Your task to perform on an android device: Go to Android settings Image 0: 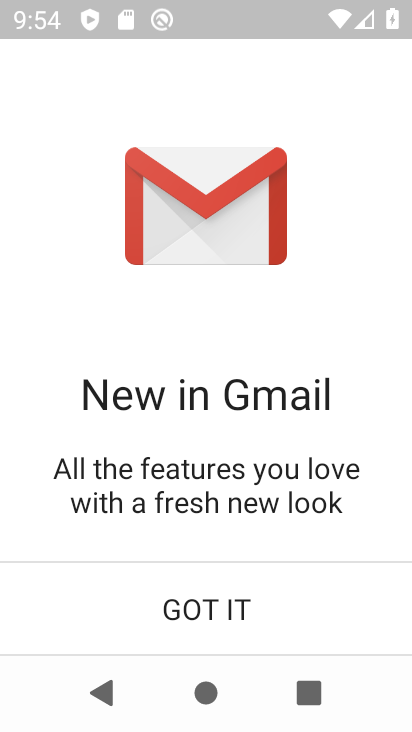
Step 0: click (208, 616)
Your task to perform on an android device: Go to Android settings Image 1: 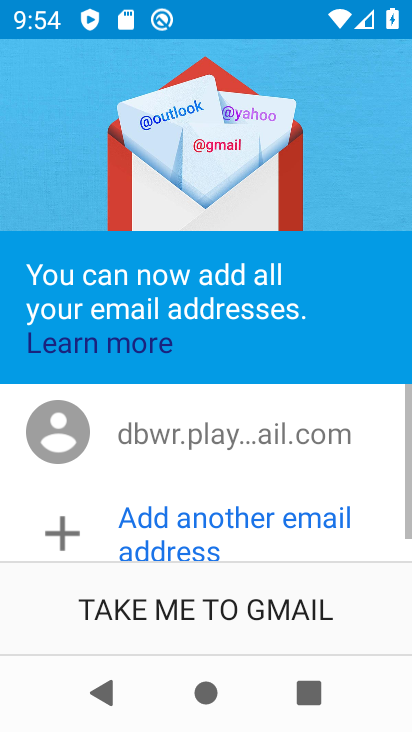
Step 1: click (209, 617)
Your task to perform on an android device: Go to Android settings Image 2: 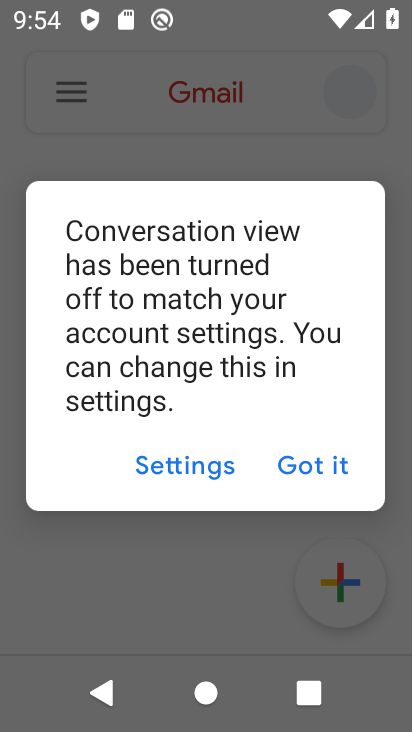
Step 2: click (319, 466)
Your task to perform on an android device: Go to Android settings Image 3: 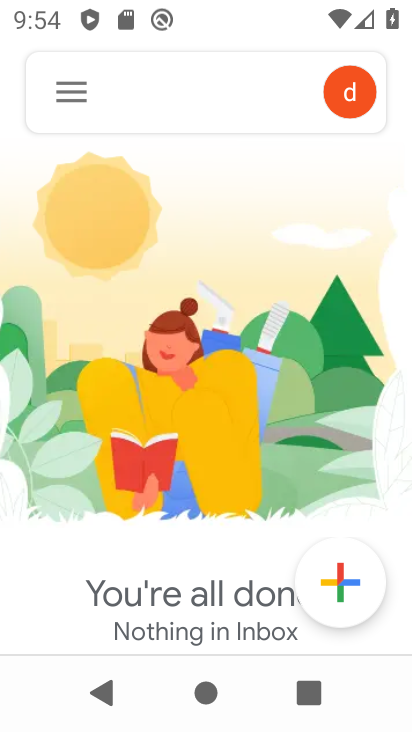
Step 3: press home button
Your task to perform on an android device: Go to Android settings Image 4: 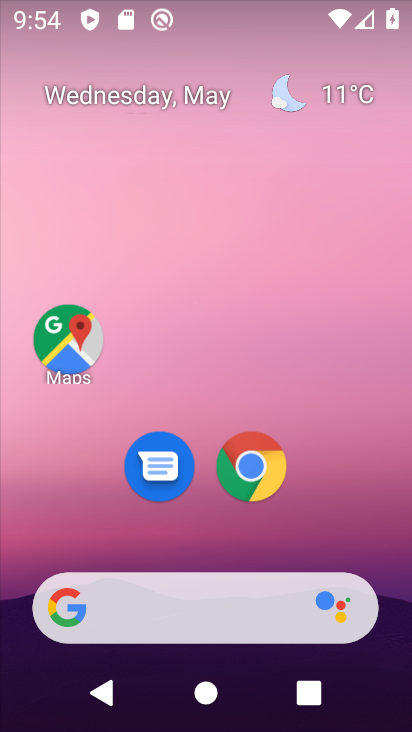
Step 4: drag from (262, 546) to (309, 116)
Your task to perform on an android device: Go to Android settings Image 5: 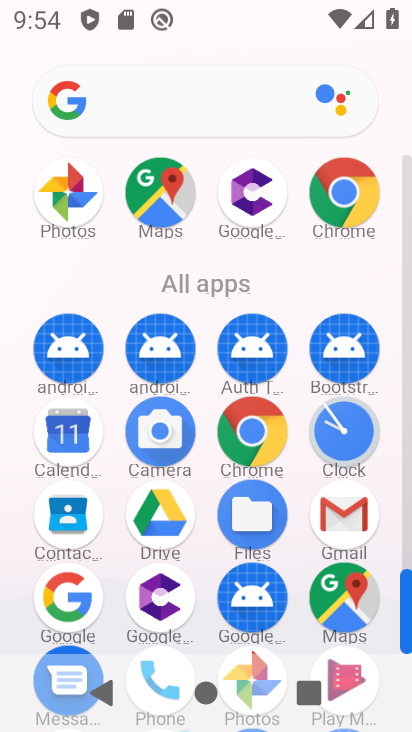
Step 5: drag from (286, 591) to (332, 235)
Your task to perform on an android device: Go to Android settings Image 6: 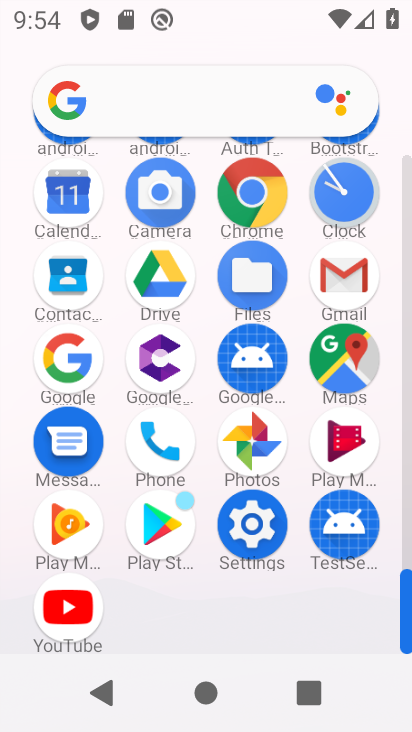
Step 6: click (243, 540)
Your task to perform on an android device: Go to Android settings Image 7: 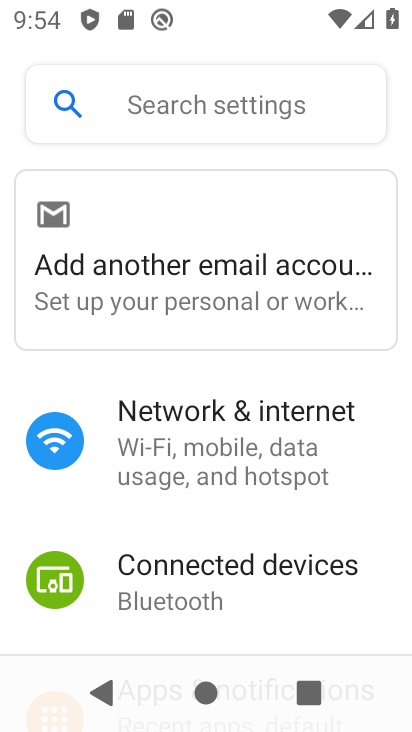
Step 7: drag from (232, 608) to (279, 171)
Your task to perform on an android device: Go to Android settings Image 8: 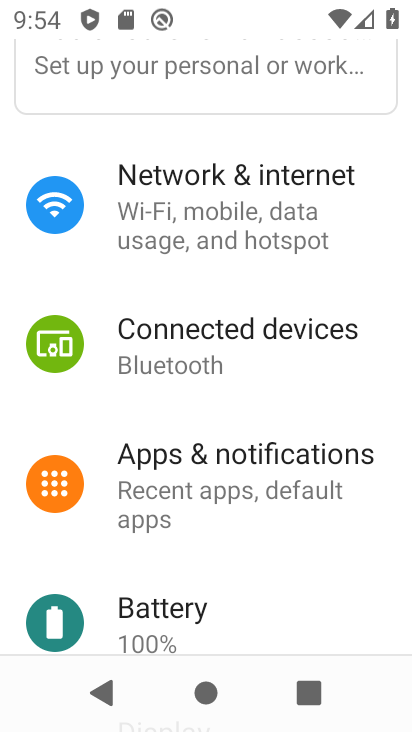
Step 8: drag from (268, 564) to (250, 207)
Your task to perform on an android device: Go to Android settings Image 9: 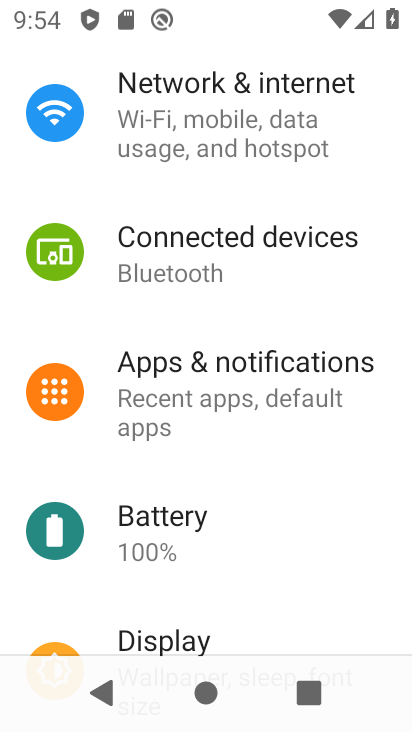
Step 9: drag from (235, 407) to (242, 268)
Your task to perform on an android device: Go to Android settings Image 10: 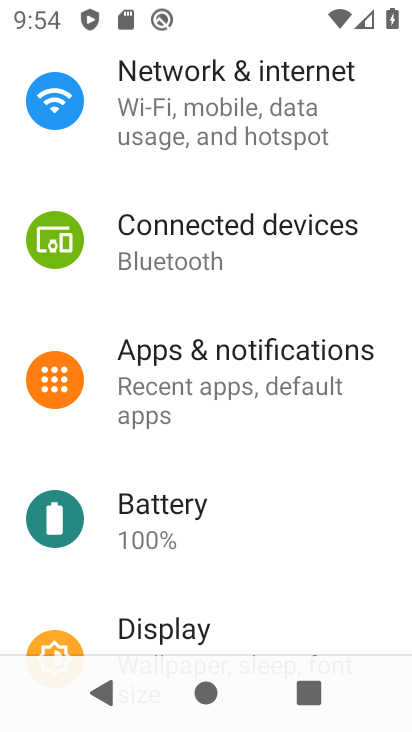
Step 10: drag from (252, 600) to (232, 142)
Your task to perform on an android device: Go to Android settings Image 11: 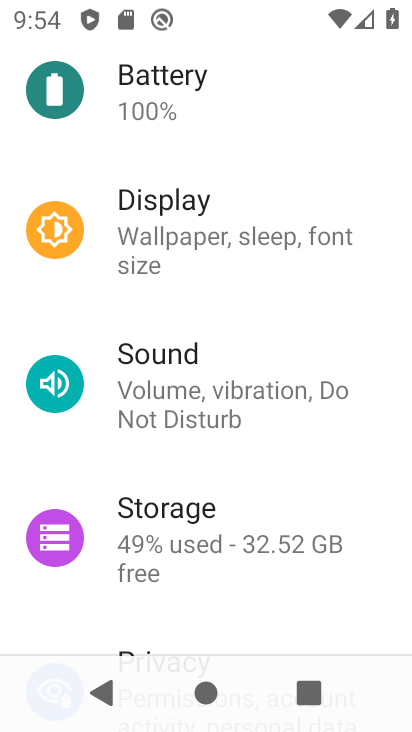
Step 11: drag from (209, 592) to (248, 121)
Your task to perform on an android device: Go to Android settings Image 12: 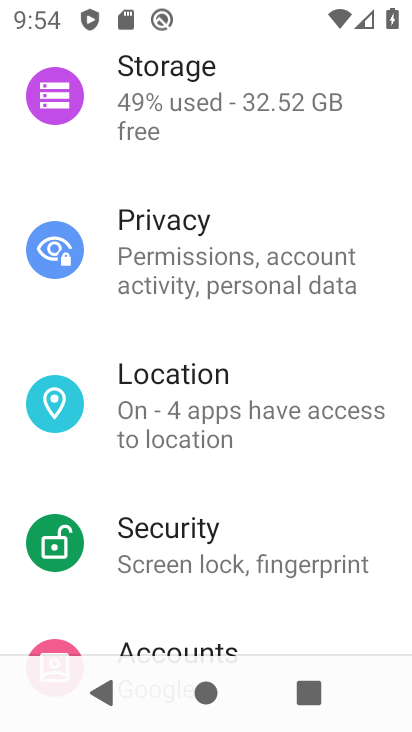
Step 12: drag from (209, 579) to (206, 78)
Your task to perform on an android device: Go to Android settings Image 13: 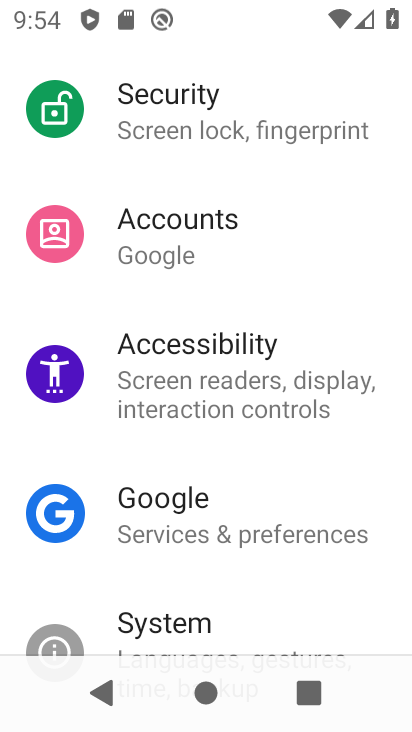
Step 13: drag from (202, 563) to (181, 129)
Your task to perform on an android device: Go to Android settings Image 14: 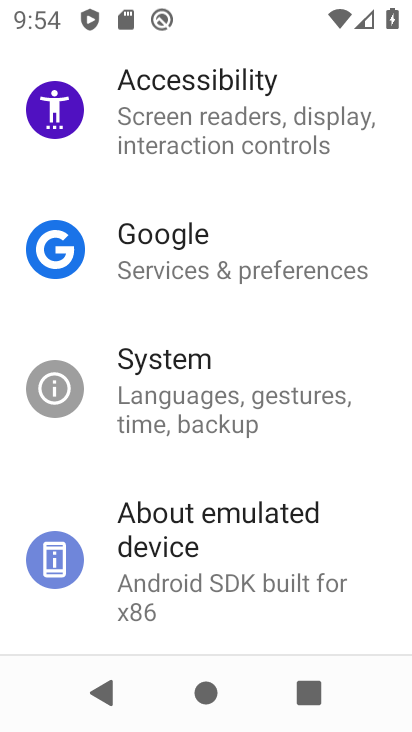
Step 14: click (179, 576)
Your task to perform on an android device: Go to Android settings Image 15: 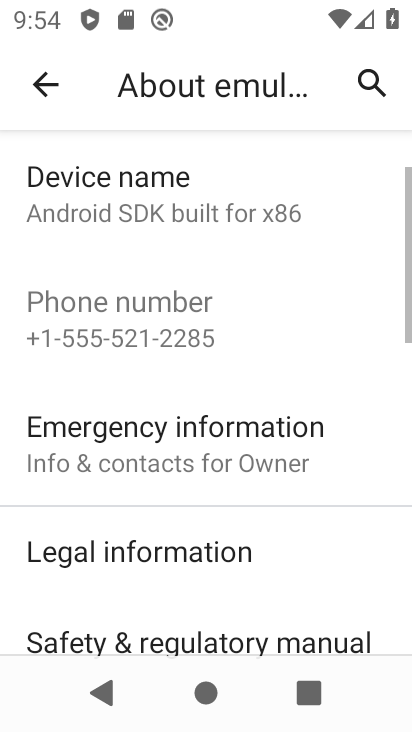
Step 15: drag from (179, 577) to (191, 235)
Your task to perform on an android device: Go to Android settings Image 16: 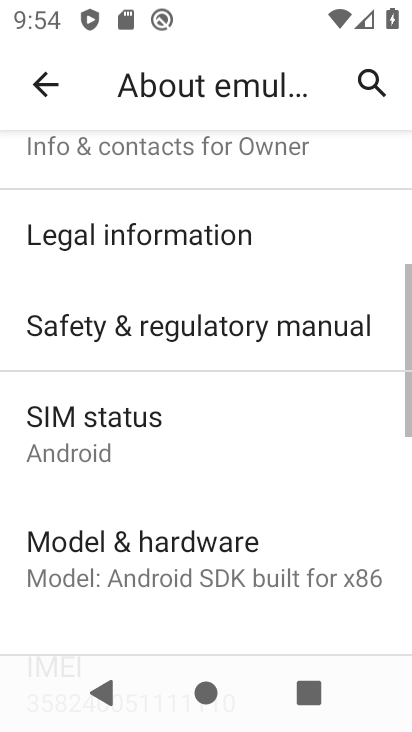
Step 16: drag from (177, 536) to (226, 262)
Your task to perform on an android device: Go to Android settings Image 17: 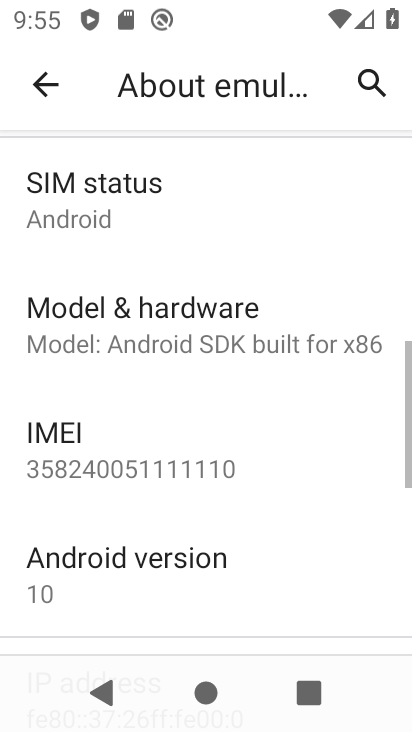
Step 17: click (151, 579)
Your task to perform on an android device: Go to Android settings Image 18: 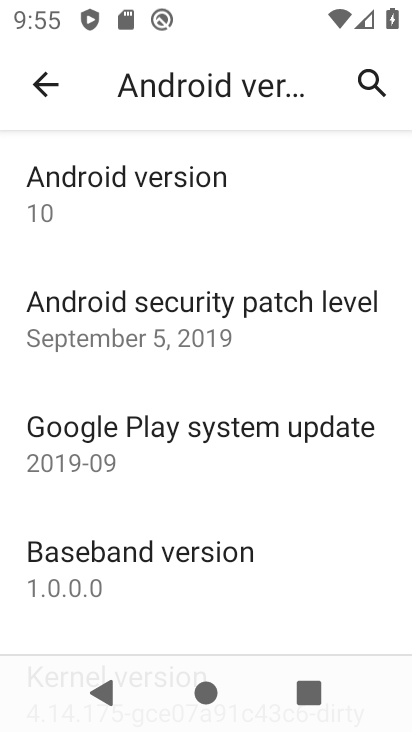
Step 18: task complete